Your task to perform on an android device: How much does a 3 bedroom apartment rent for in Philadelphia? Image 0: 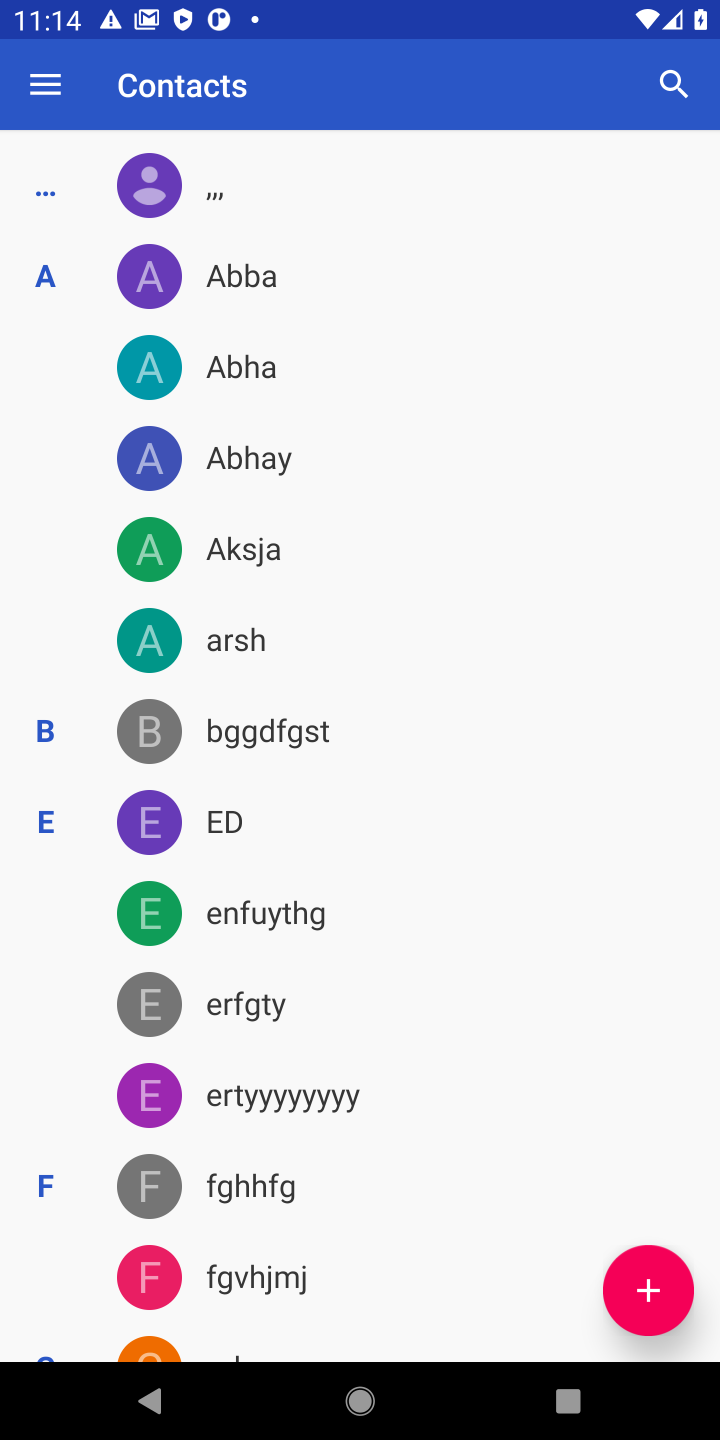
Step 0: press home button
Your task to perform on an android device: How much does a 3 bedroom apartment rent for in Philadelphia? Image 1: 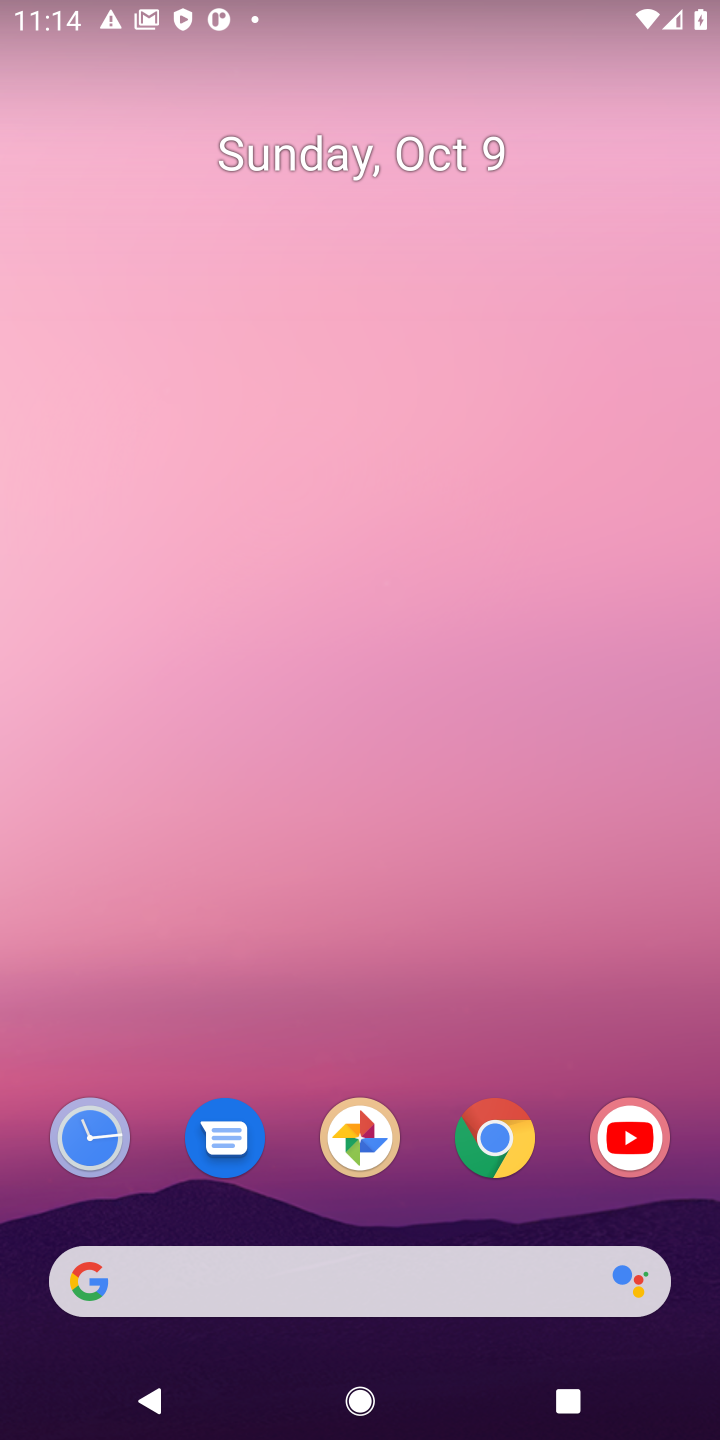
Step 1: click (487, 1159)
Your task to perform on an android device: How much does a 3 bedroom apartment rent for in Philadelphia? Image 2: 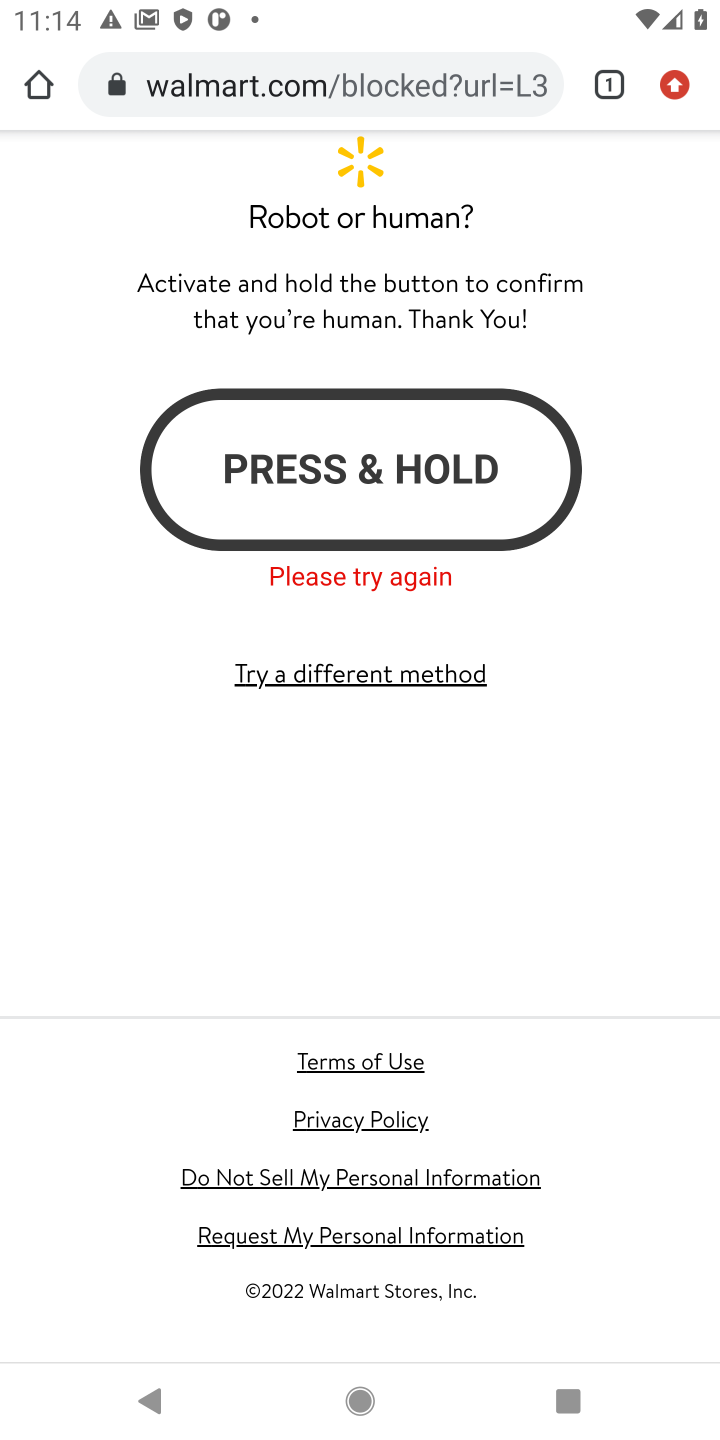
Step 2: click (416, 87)
Your task to perform on an android device: How much does a 3 bedroom apartment rent for in Philadelphia? Image 3: 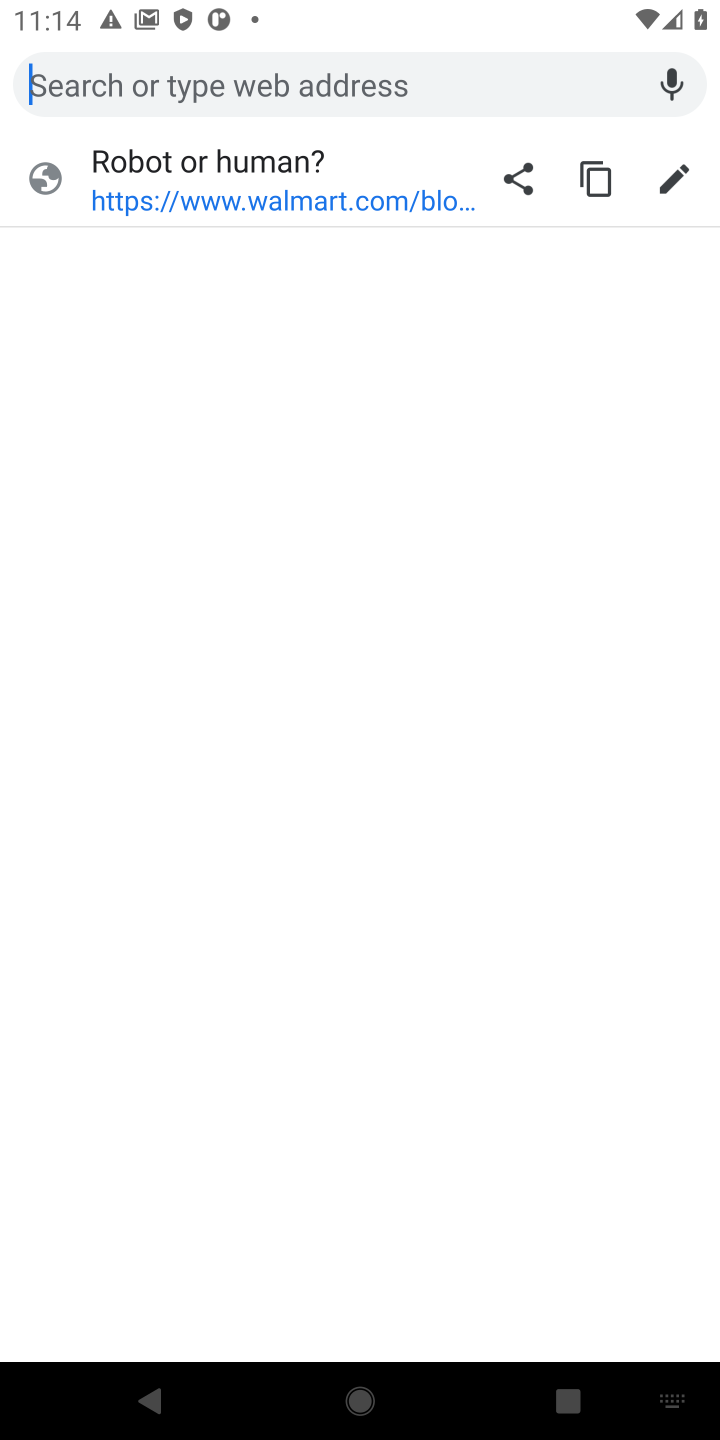
Step 3: type "How much does a 3 bedroom apartment rent for in Philadelphia?"
Your task to perform on an android device: How much does a 3 bedroom apartment rent for in Philadelphia? Image 4: 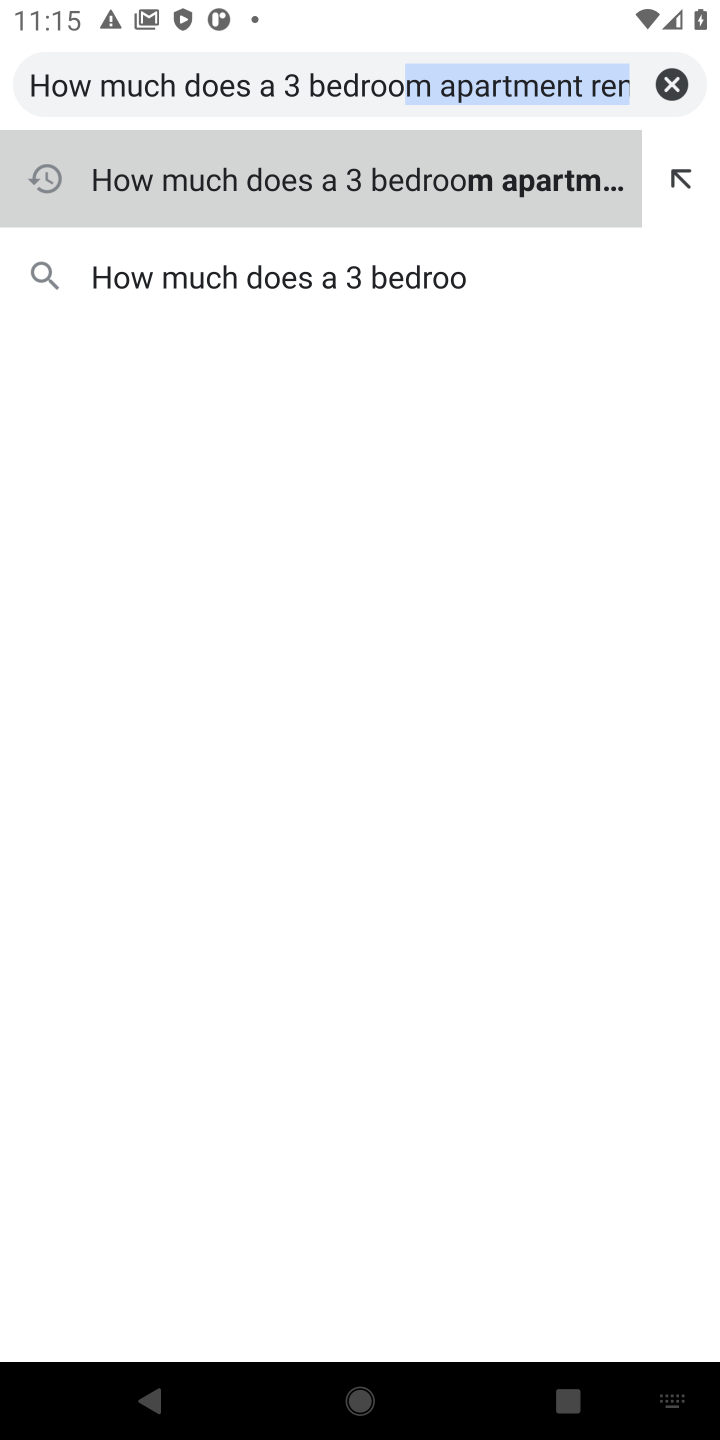
Step 4: press enter
Your task to perform on an android device: How much does a 3 bedroom apartment rent for in Philadelphia? Image 5: 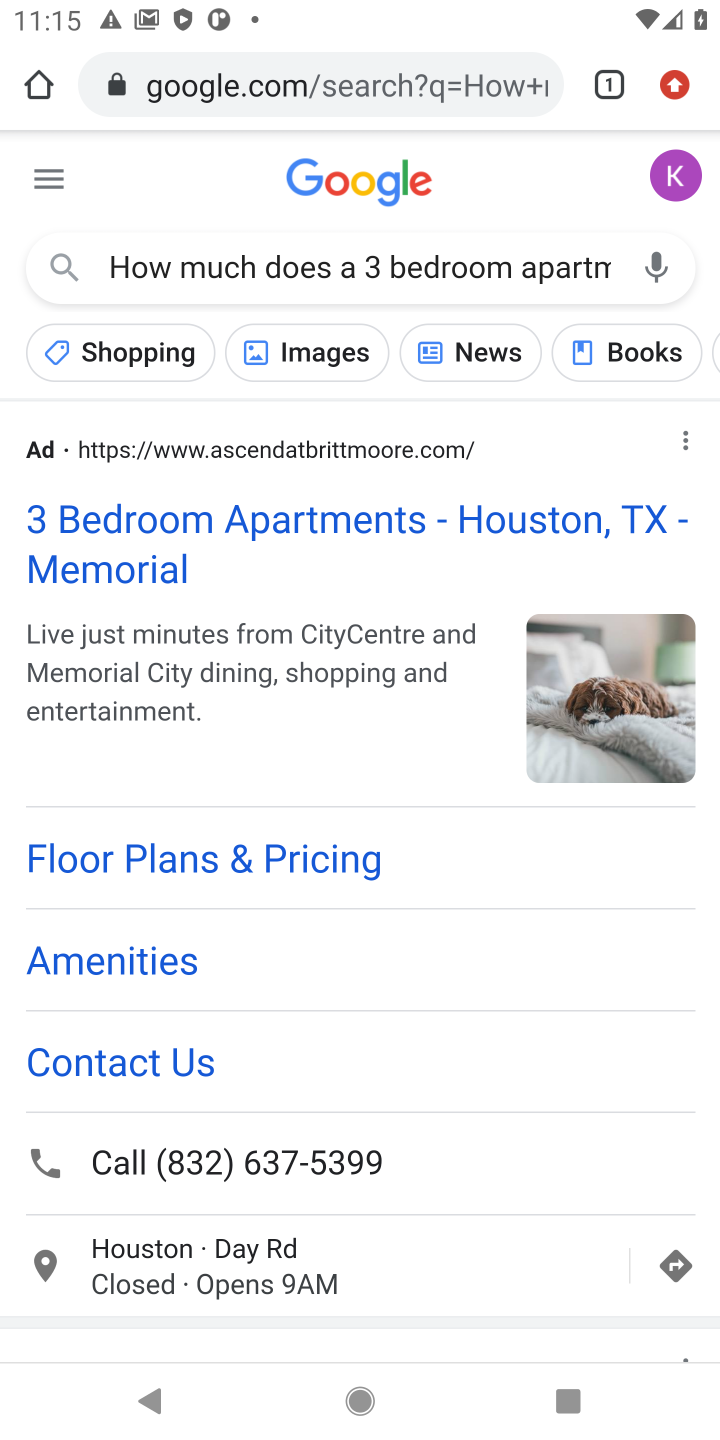
Step 5: drag from (470, 1173) to (300, 50)
Your task to perform on an android device: How much does a 3 bedroom apartment rent for in Philadelphia? Image 6: 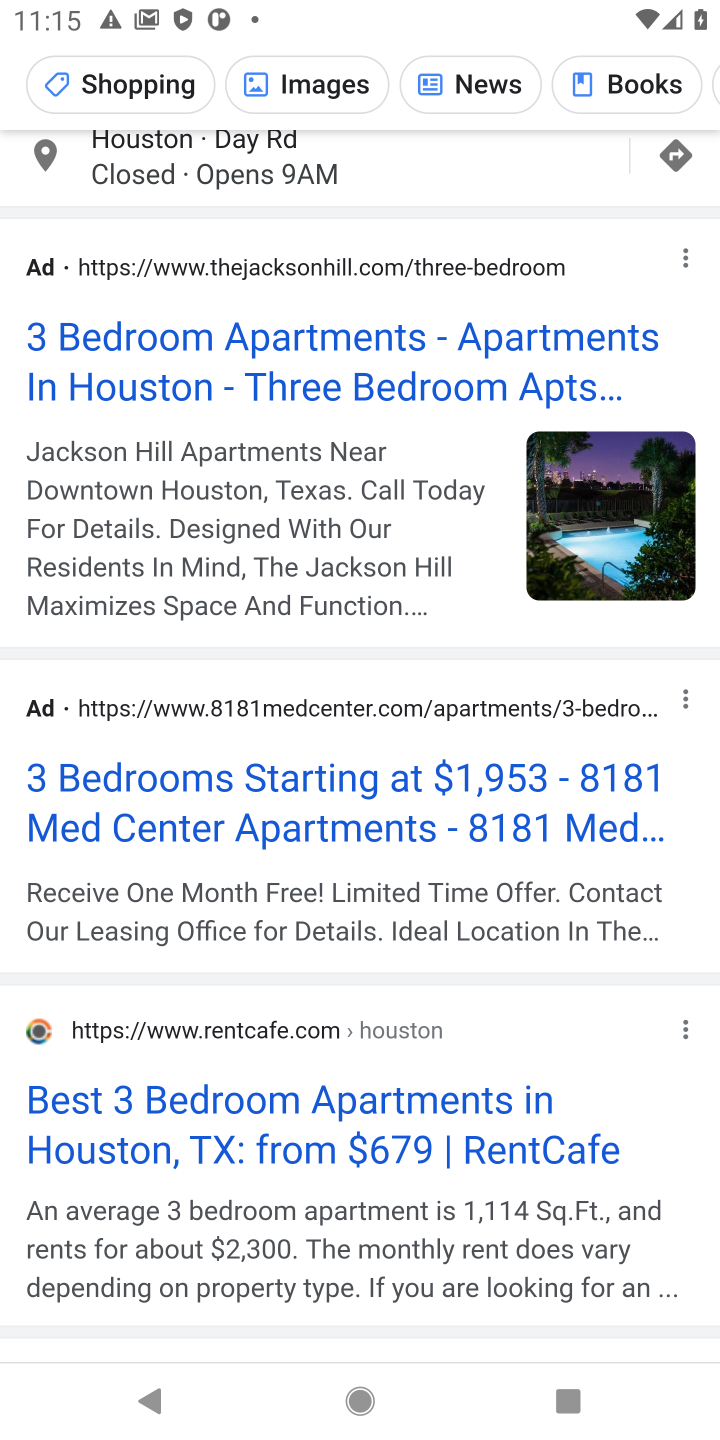
Step 6: click (358, 792)
Your task to perform on an android device: How much does a 3 bedroom apartment rent for in Philadelphia? Image 7: 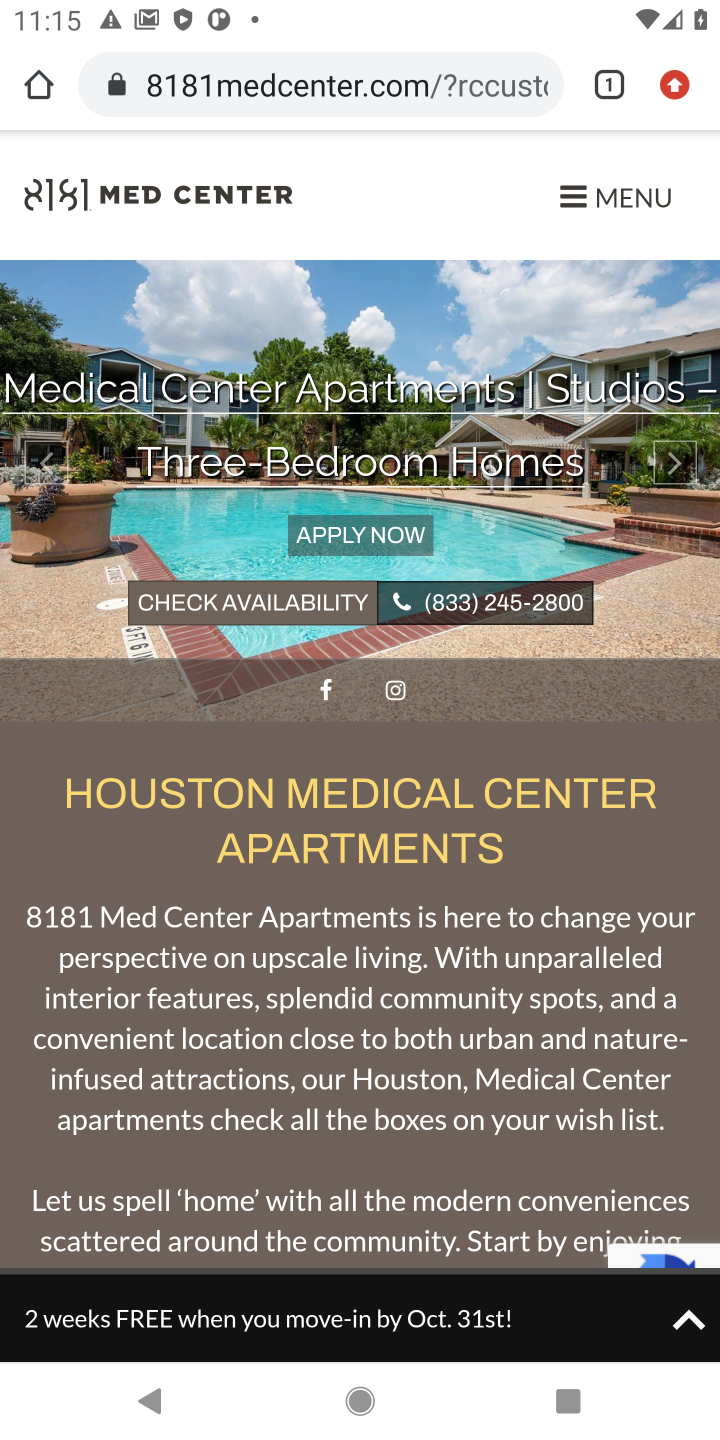
Step 7: task complete